Your task to perform on an android device: What's on my calendar tomorrow? Image 0: 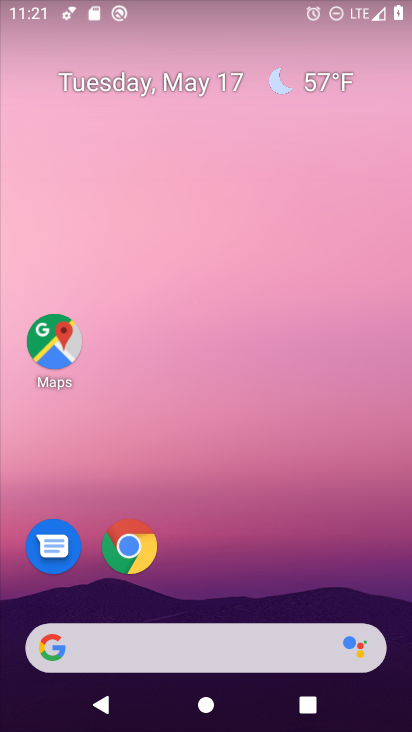
Step 0: drag from (298, 575) to (321, 15)
Your task to perform on an android device: What's on my calendar tomorrow? Image 1: 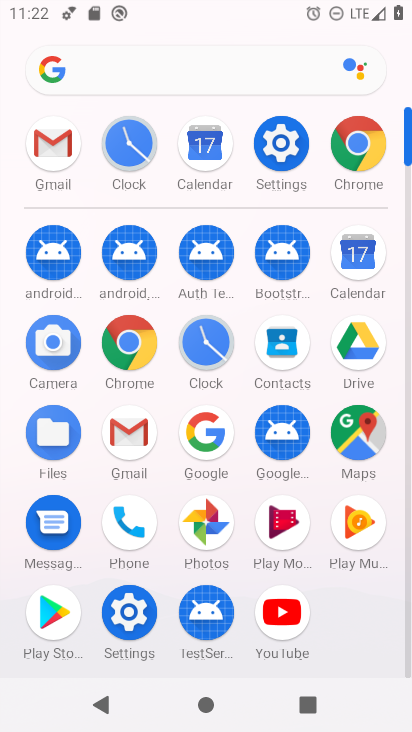
Step 1: click (205, 151)
Your task to perform on an android device: What's on my calendar tomorrow? Image 2: 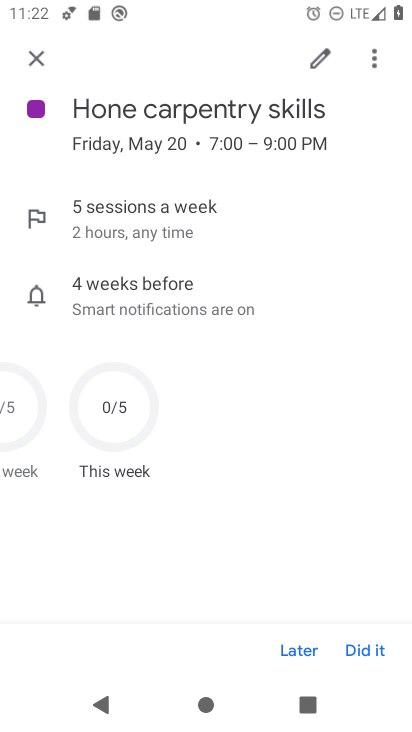
Step 2: click (211, 153)
Your task to perform on an android device: What's on my calendar tomorrow? Image 3: 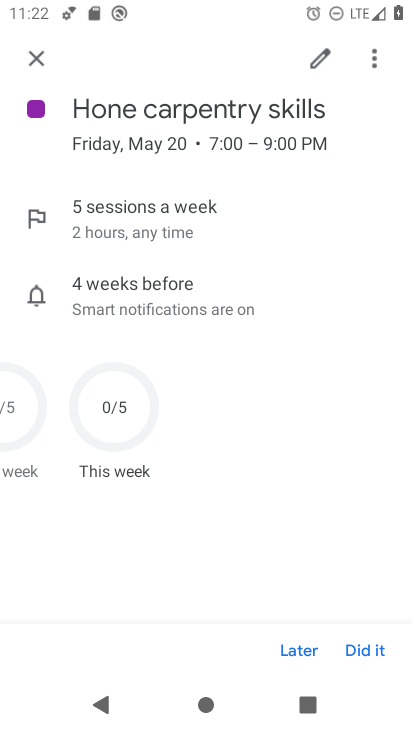
Step 3: click (45, 63)
Your task to perform on an android device: What's on my calendar tomorrow? Image 4: 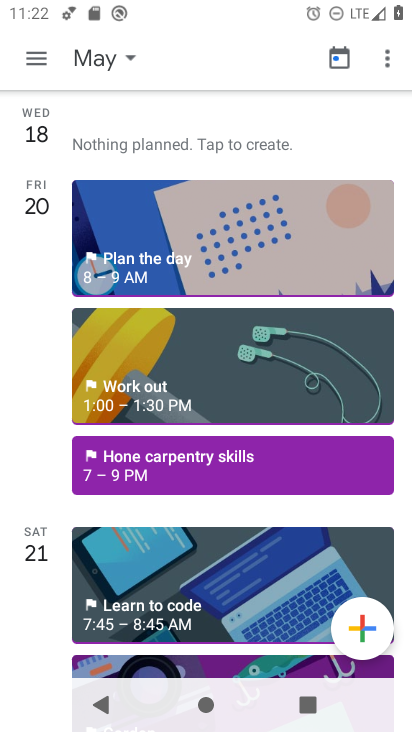
Step 4: click (136, 149)
Your task to perform on an android device: What's on my calendar tomorrow? Image 5: 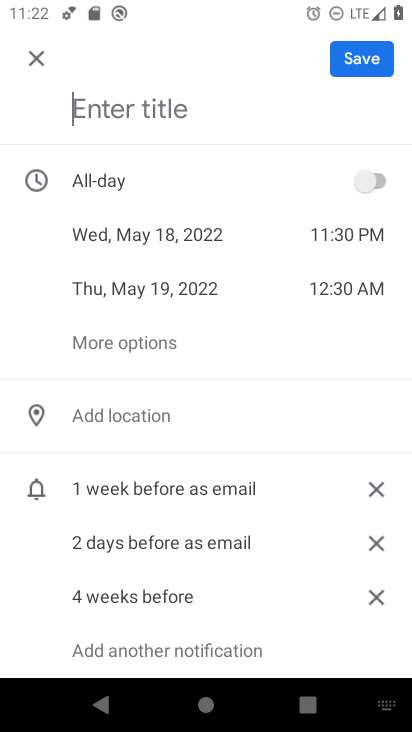
Step 5: task complete